Your task to perform on an android device: star an email in the gmail app Image 0: 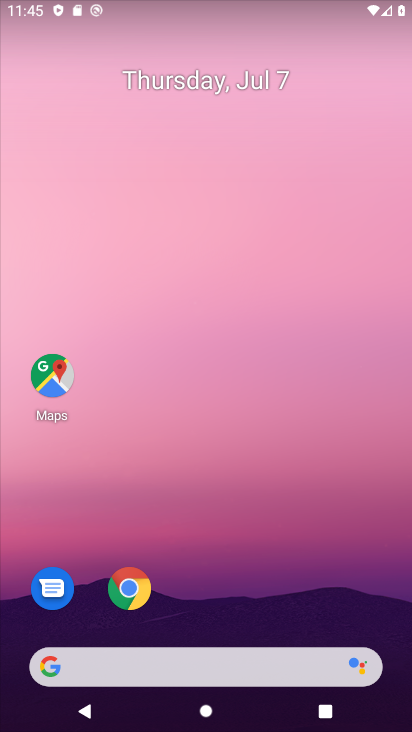
Step 0: drag from (198, 220) to (186, 123)
Your task to perform on an android device: star an email in the gmail app Image 1: 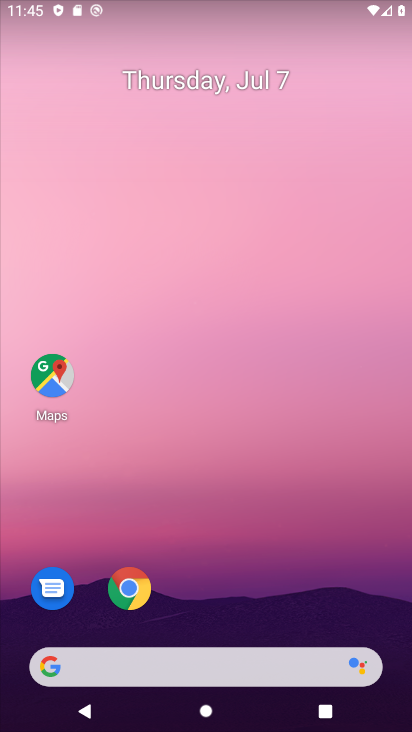
Step 1: drag from (210, 533) to (247, 18)
Your task to perform on an android device: star an email in the gmail app Image 2: 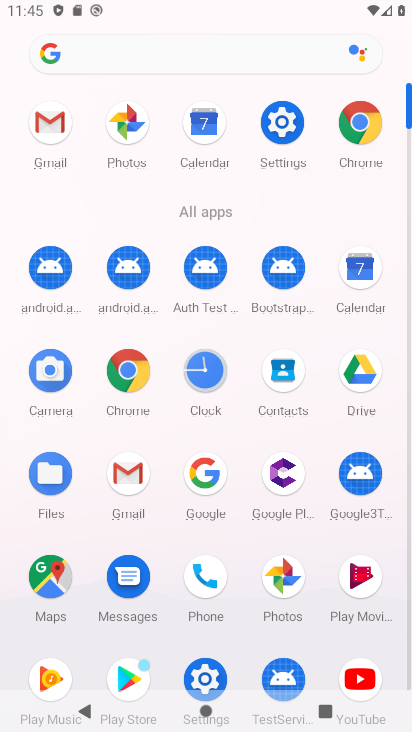
Step 2: click (55, 131)
Your task to perform on an android device: star an email in the gmail app Image 3: 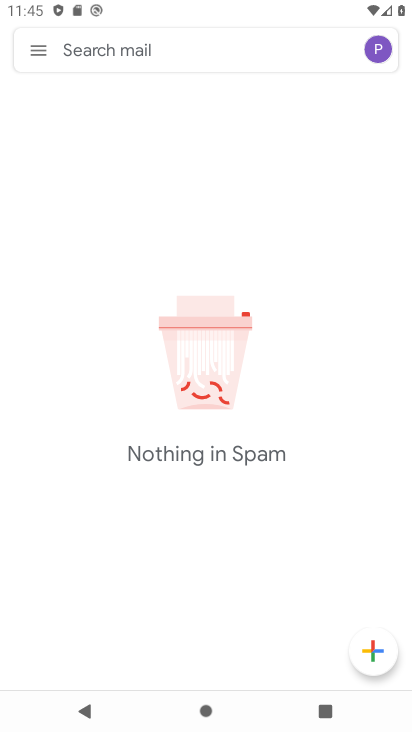
Step 3: task complete